Your task to perform on an android device: Open wifi settings Image 0: 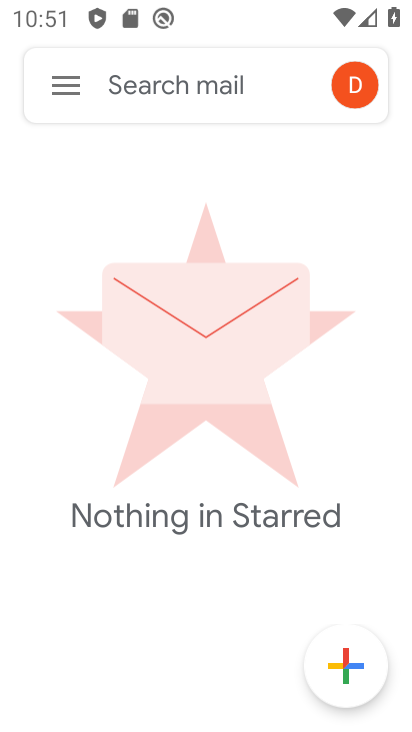
Step 0: press home button
Your task to perform on an android device: Open wifi settings Image 1: 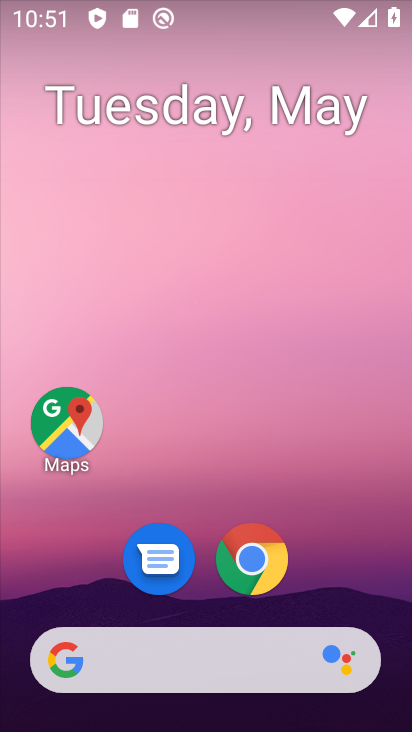
Step 1: drag from (340, 537) to (297, 236)
Your task to perform on an android device: Open wifi settings Image 2: 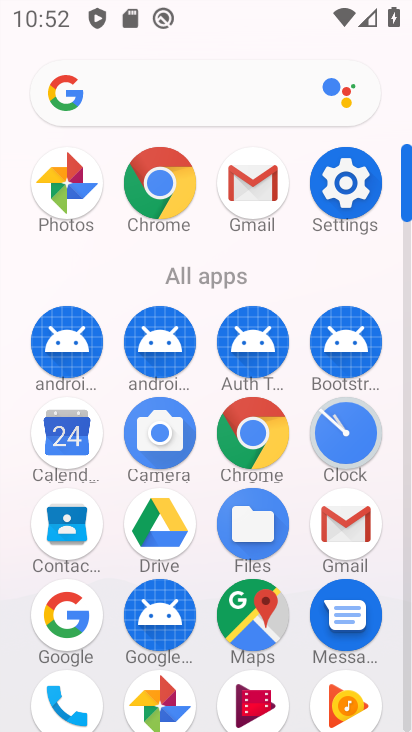
Step 2: click (358, 186)
Your task to perform on an android device: Open wifi settings Image 3: 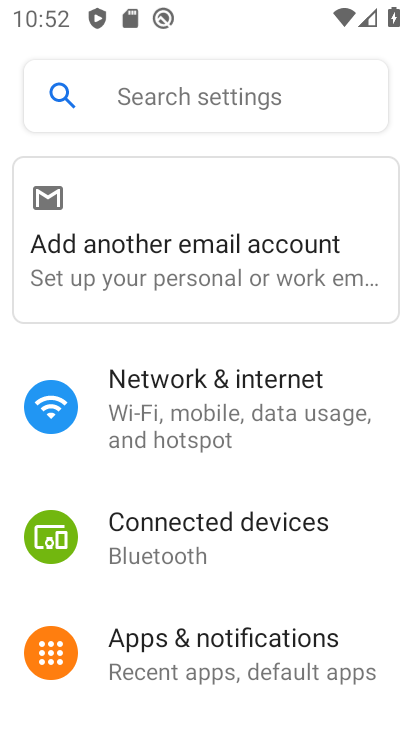
Step 3: click (289, 383)
Your task to perform on an android device: Open wifi settings Image 4: 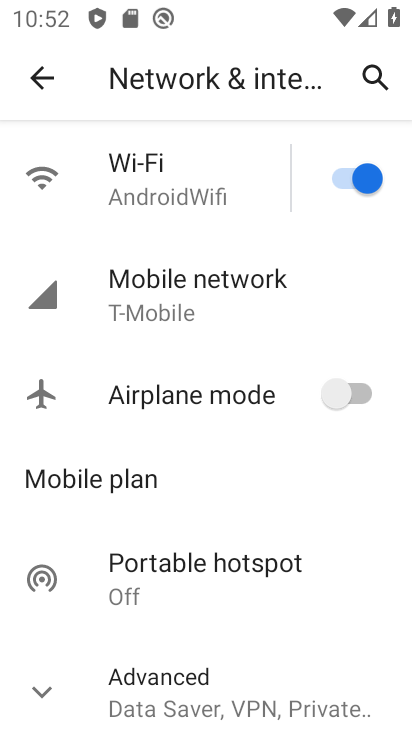
Step 4: click (172, 196)
Your task to perform on an android device: Open wifi settings Image 5: 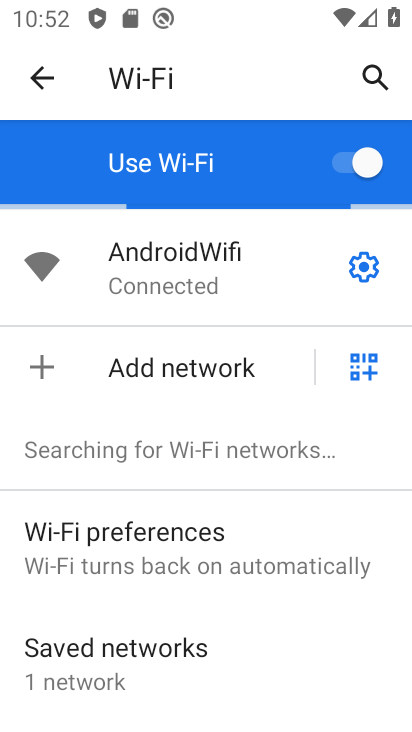
Step 5: task complete